Your task to perform on an android device: turn off data saver in the chrome app Image 0: 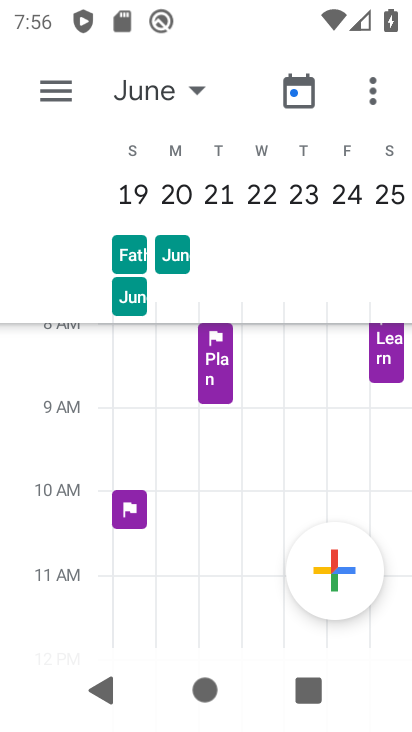
Step 0: press home button
Your task to perform on an android device: turn off data saver in the chrome app Image 1: 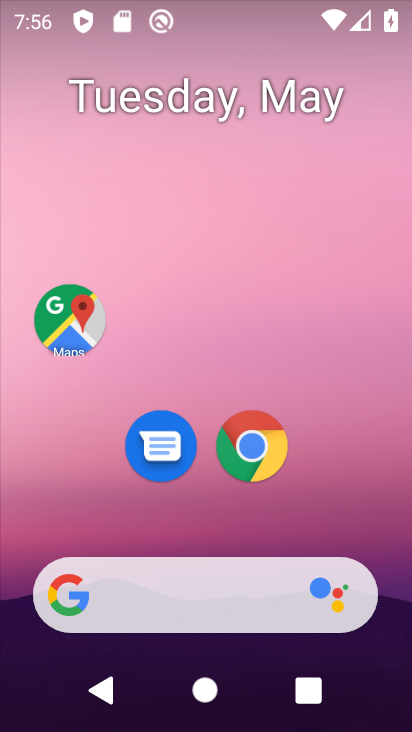
Step 1: click (253, 451)
Your task to perform on an android device: turn off data saver in the chrome app Image 2: 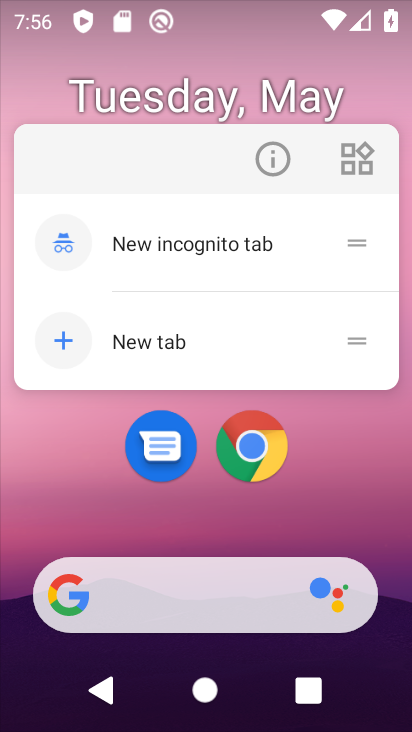
Step 2: click (253, 451)
Your task to perform on an android device: turn off data saver in the chrome app Image 3: 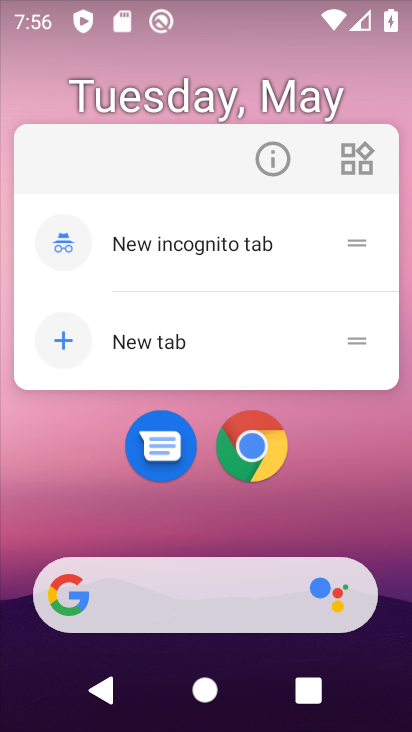
Step 3: click (253, 451)
Your task to perform on an android device: turn off data saver in the chrome app Image 4: 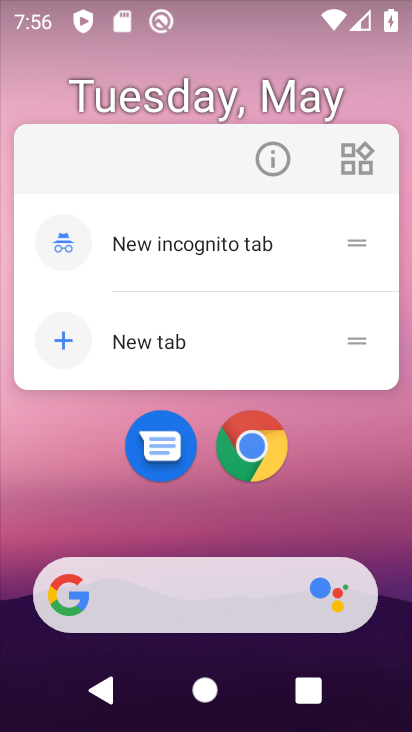
Step 4: click (253, 451)
Your task to perform on an android device: turn off data saver in the chrome app Image 5: 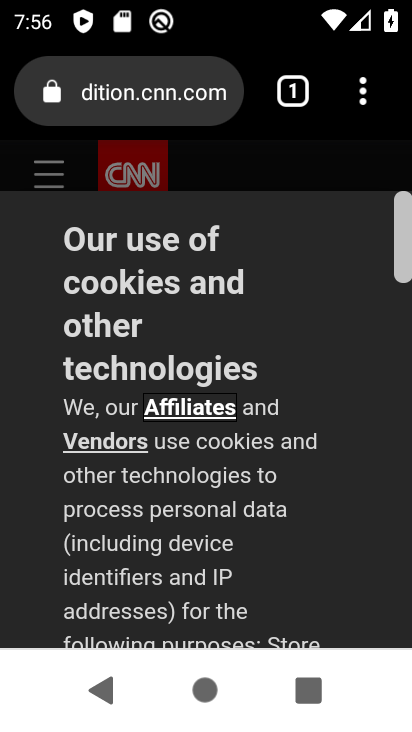
Step 5: click (365, 93)
Your task to perform on an android device: turn off data saver in the chrome app Image 6: 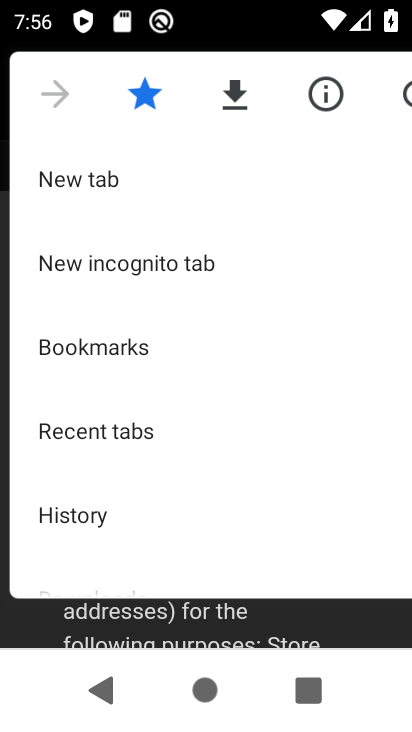
Step 6: drag from (224, 505) to (230, 152)
Your task to perform on an android device: turn off data saver in the chrome app Image 7: 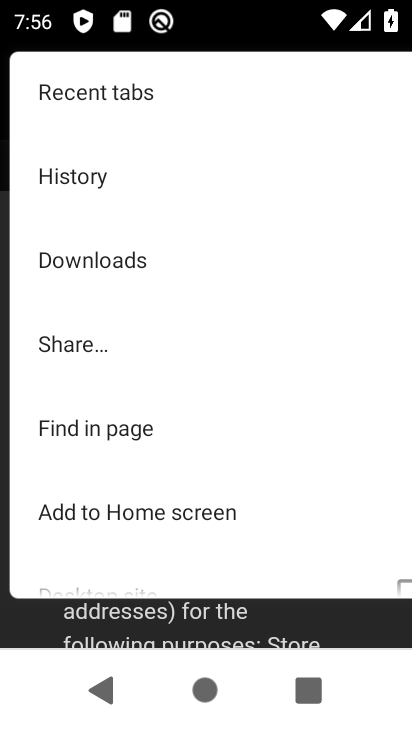
Step 7: drag from (211, 470) to (205, 192)
Your task to perform on an android device: turn off data saver in the chrome app Image 8: 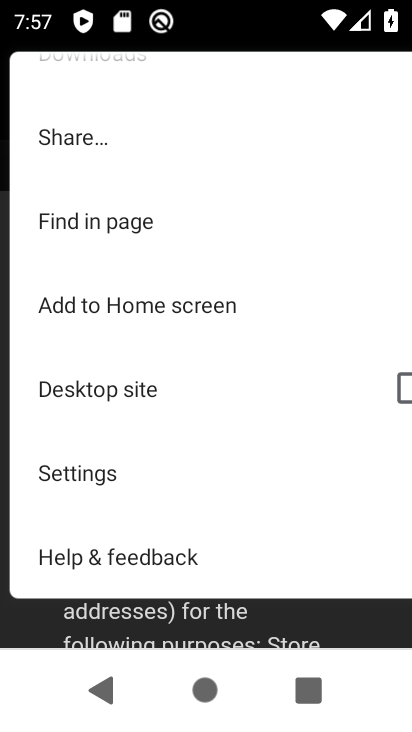
Step 8: click (113, 472)
Your task to perform on an android device: turn off data saver in the chrome app Image 9: 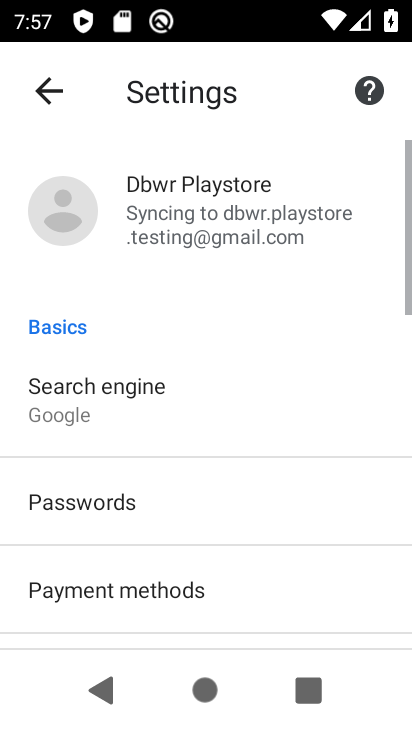
Step 9: drag from (170, 574) to (176, 149)
Your task to perform on an android device: turn off data saver in the chrome app Image 10: 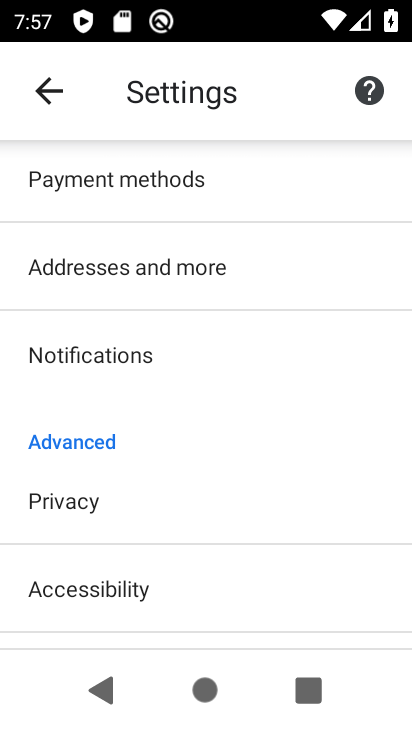
Step 10: drag from (166, 554) to (192, 249)
Your task to perform on an android device: turn off data saver in the chrome app Image 11: 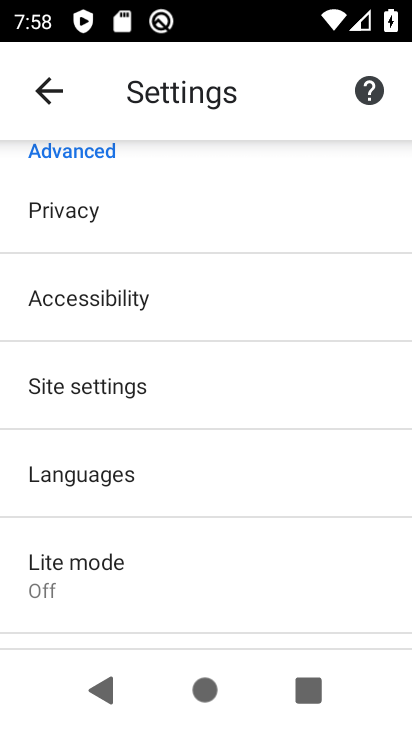
Step 11: click (100, 570)
Your task to perform on an android device: turn off data saver in the chrome app Image 12: 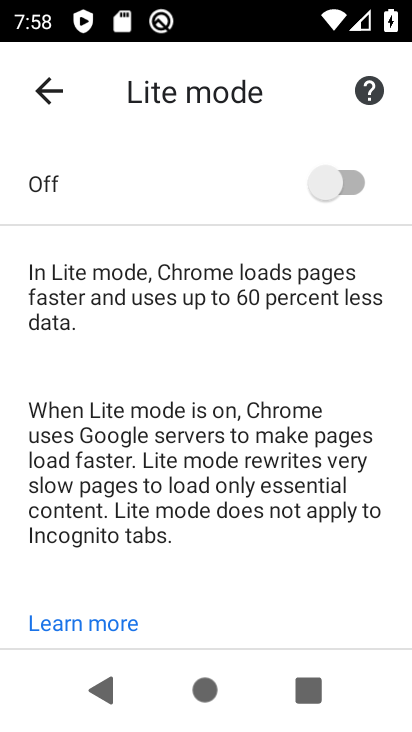
Step 12: task complete